Your task to perform on an android device: Go to calendar. Show me events next week Image 0: 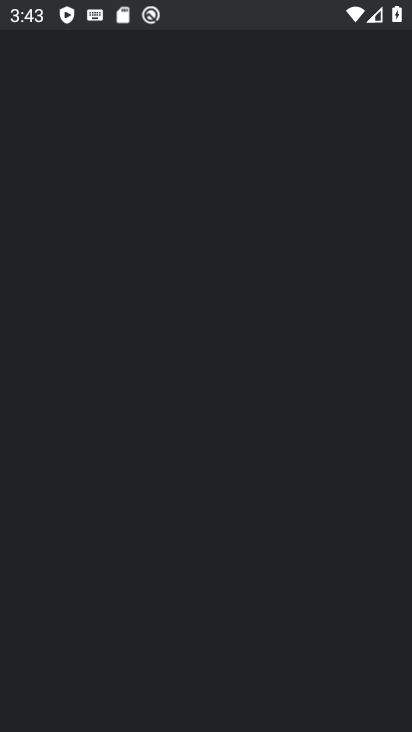
Step 0: drag from (346, 514) to (308, 254)
Your task to perform on an android device: Go to calendar. Show me events next week Image 1: 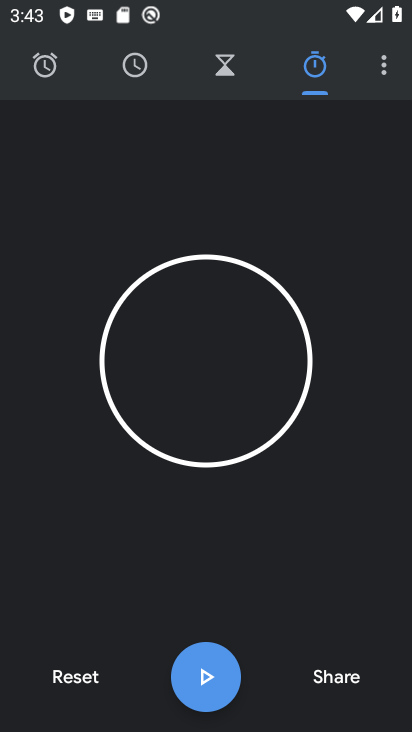
Step 1: press home button
Your task to perform on an android device: Go to calendar. Show me events next week Image 2: 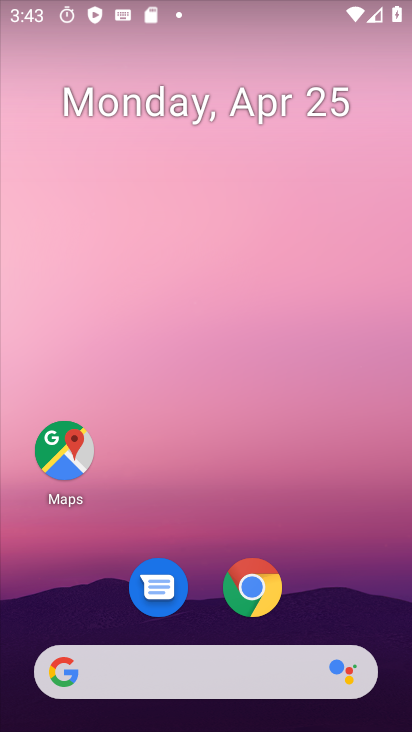
Step 2: drag from (347, 595) to (244, 196)
Your task to perform on an android device: Go to calendar. Show me events next week Image 3: 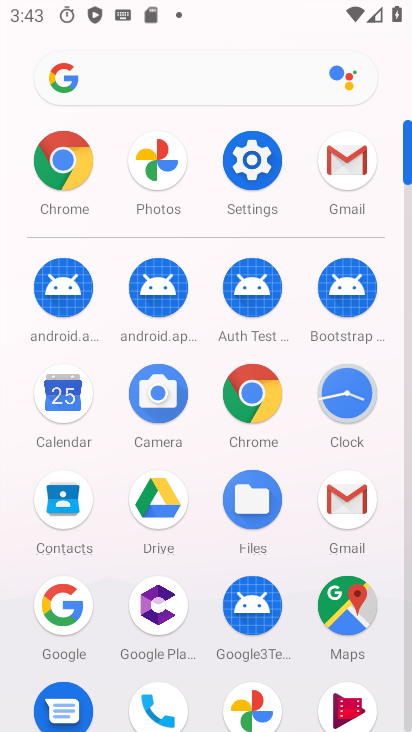
Step 3: click (60, 391)
Your task to perform on an android device: Go to calendar. Show me events next week Image 4: 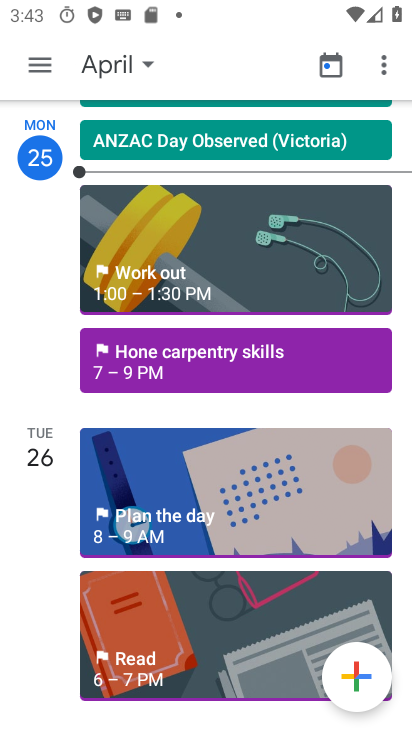
Step 4: click (117, 70)
Your task to perform on an android device: Go to calendar. Show me events next week Image 5: 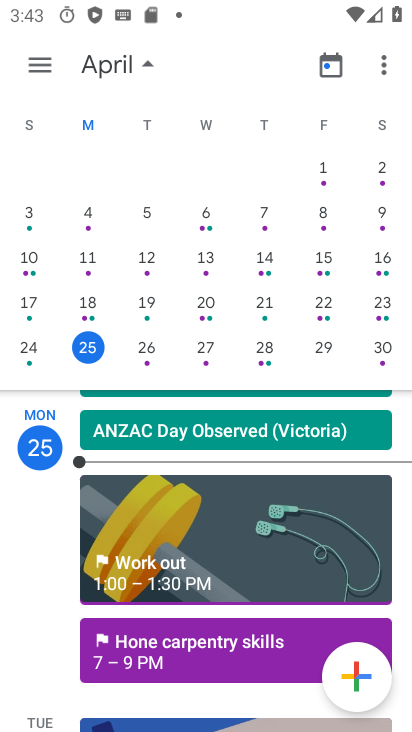
Step 5: drag from (352, 271) to (45, 248)
Your task to perform on an android device: Go to calendar. Show me events next week Image 6: 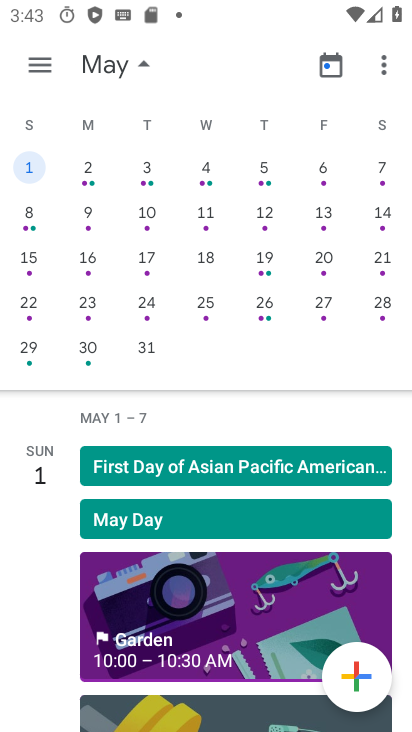
Step 6: click (91, 168)
Your task to perform on an android device: Go to calendar. Show me events next week Image 7: 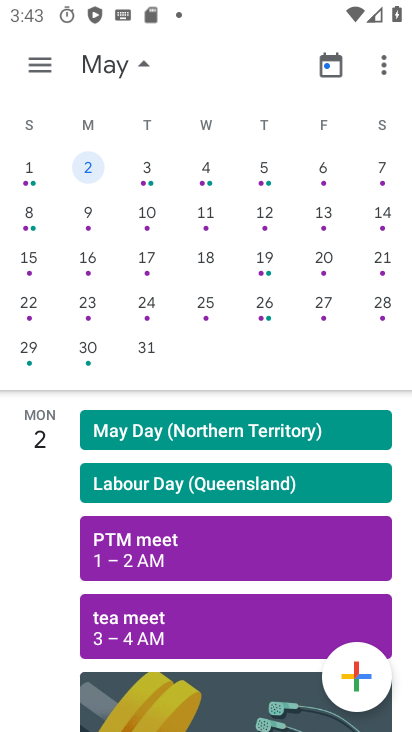
Step 7: task complete